Your task to perform on an android device: check the backup settings in the google photos Image 0: 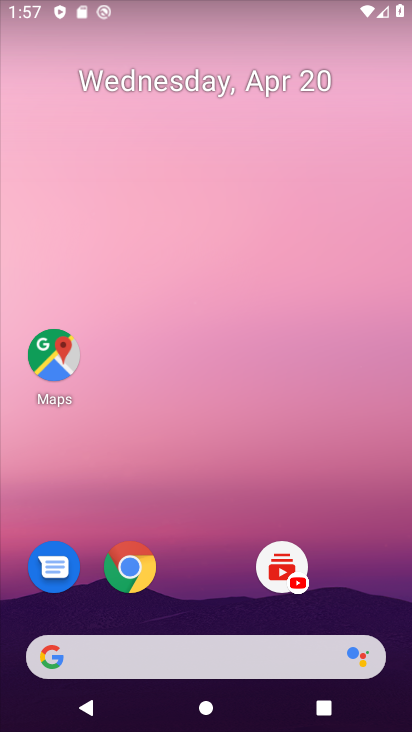
Step 0: drag from (236, 520) to (223, 208)
Your task to perform on an android device: check the backup settings in the google photos Image 1: 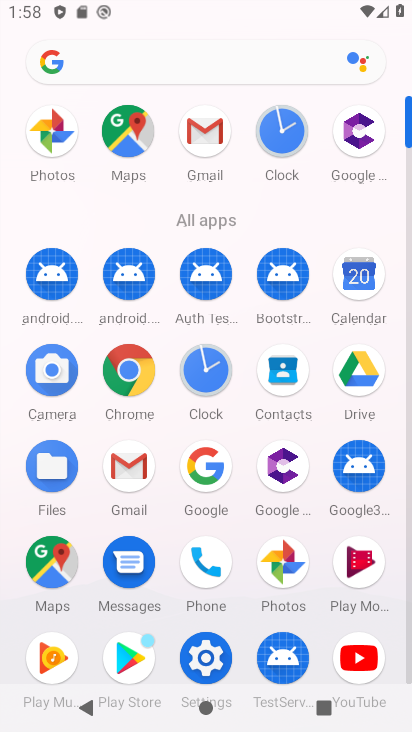
Step 1: click (289, 571)
Your task to perform on an android device: check the backup settings in the google photos Image 2: 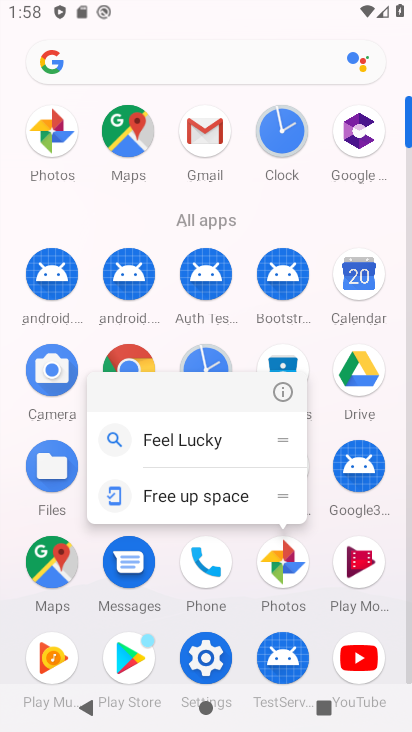
Step 2: click (288, 390)
Your task to perform on an android device: check the backup settings in the google photos Image 3: 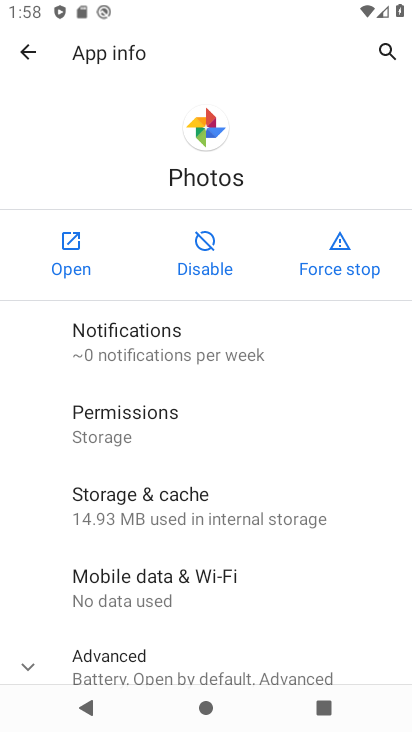
Step 3: click (78, 258)
Your task to perform on an android device: check the backup settings in the google photos Image 4: 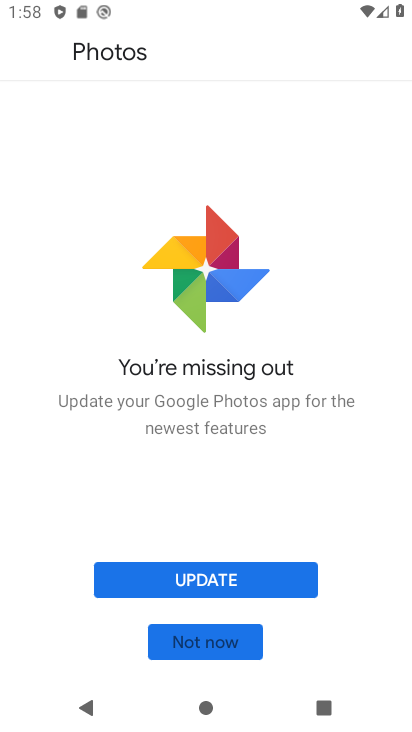
Step 4: click (225, 652)
Your task to perform on an android device: check the backup settings in the google photos Image 5: 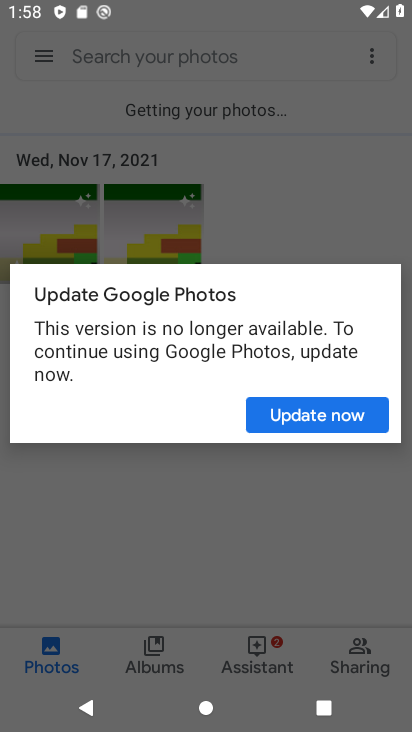
Step 5: click (345, 232)
Your task to perform on an android device: check the backup settings in the google photos Image 6: 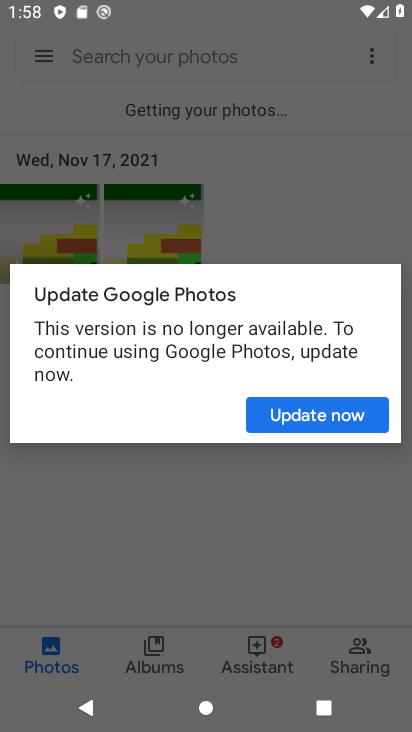
Step 6: click (323, 419)
Your task to perform on an android device: check the backup settings in the google photos Image 7: 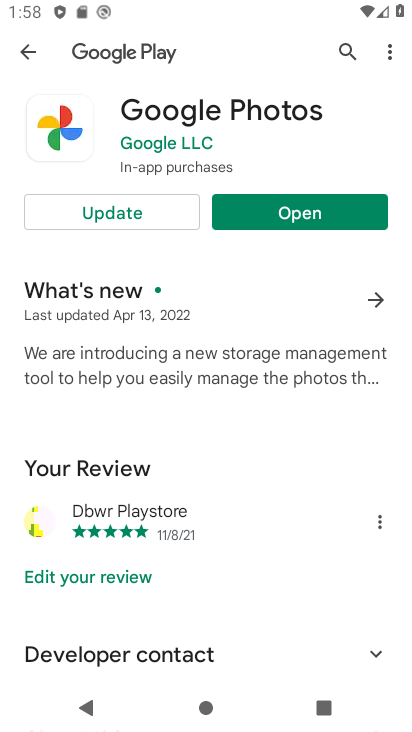
Step 7: click (133, 212)
Your task to perform on an android device: check the backup settings in the google photos Image 8: 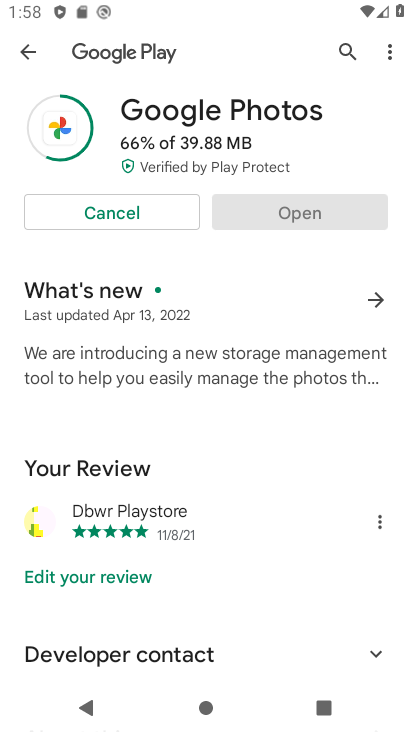
Step 8: press back button
Your task to perform on an android device: check the backup settings in the google photos Image 9: 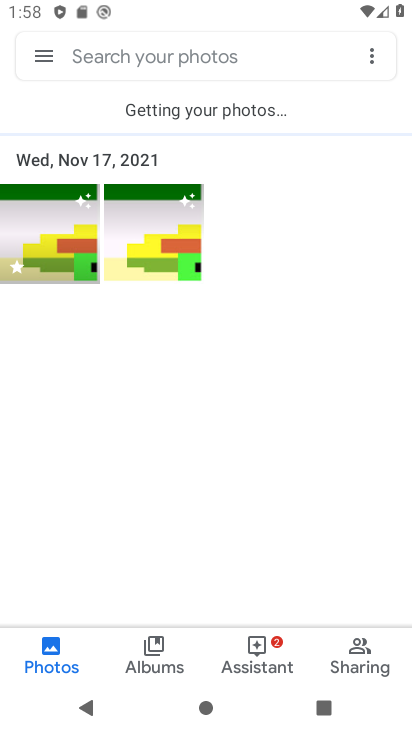
Step 9: click (38, 53)
Your task to perform on an android device: check the backup settings in the google photos Image 10: 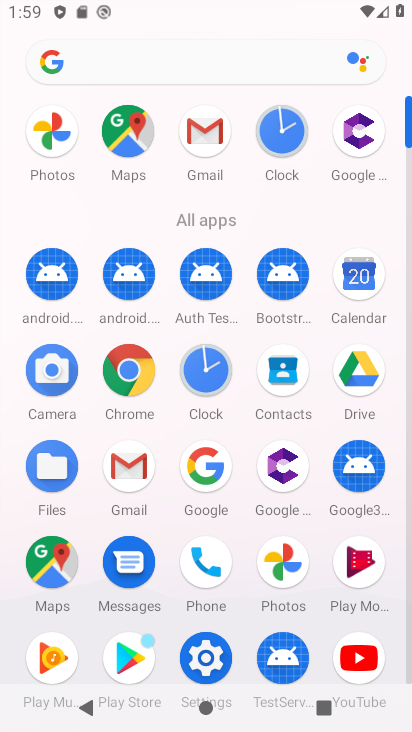
Step 10: click (282, 575)
Your task to perform on an android device: check the backup settings in the google photos Image 11: 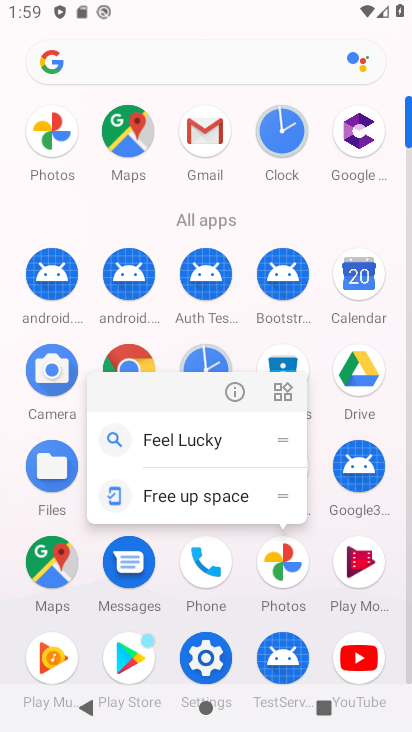
Step 11: click (233, 396)
Your task to perform on an android device: check the backup settings in the google photos Image 12: 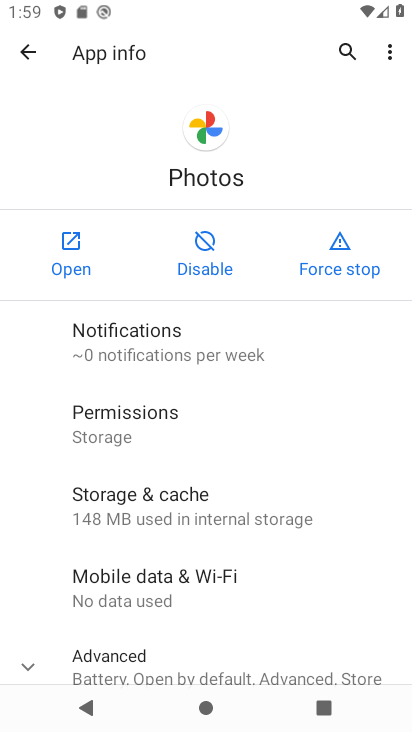
Step 12: click (62, 246)
Your task to perform on an android device: check the backup settings in the google photos Image 13: 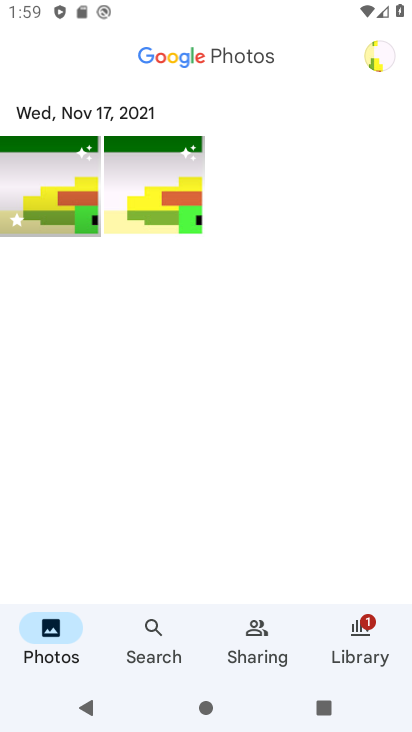
Step 13: click (366, 623)
Your task to perform on an android device: check the backup settings in the google photos Image 14: 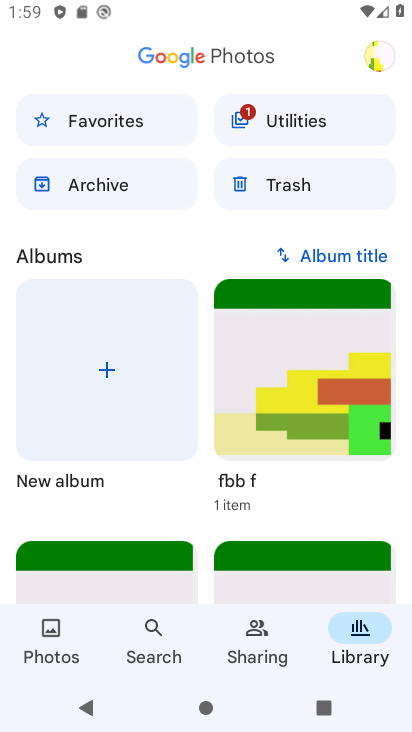
Step 14: click (388, 62)
Your task to perform on an android device: check the backup settings in the google photos Image 15: 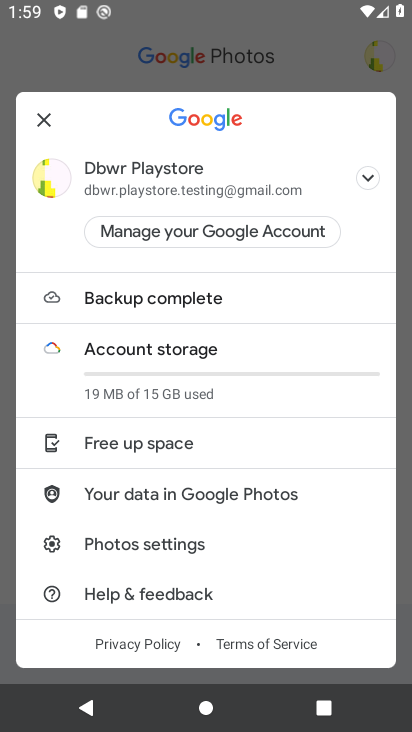
Step 15: click (168, 284)
Your task to perform on an android device: check the backup settings in the google photos Image 16: 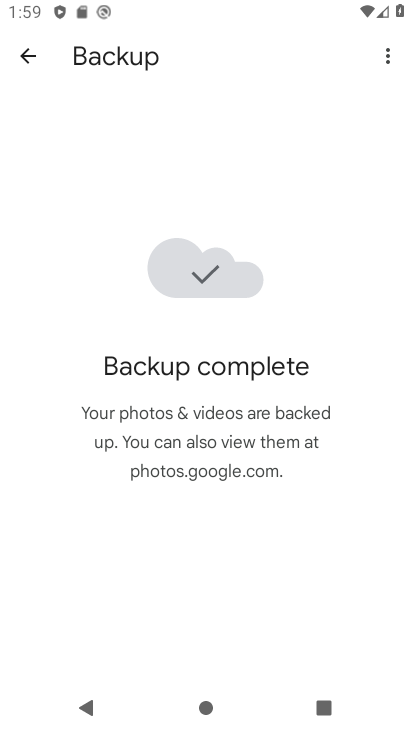
Step 16: click (287, 463)
Your task to perform on an android device: check the backup settings in the google photos Image 17: 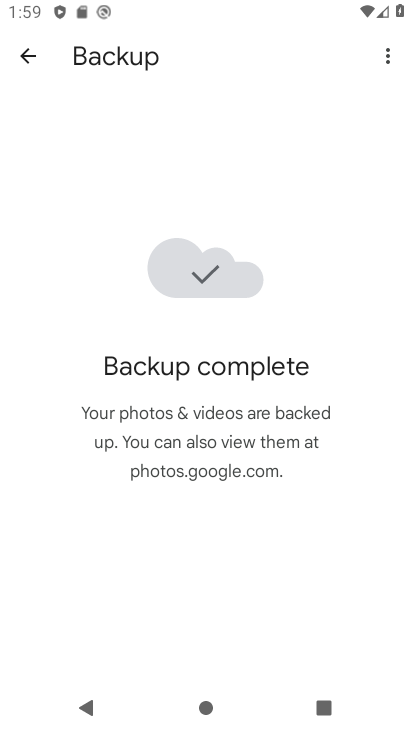
Step 17: task complete